Your task to perform on an android device: Do I have any events today? Image 0: 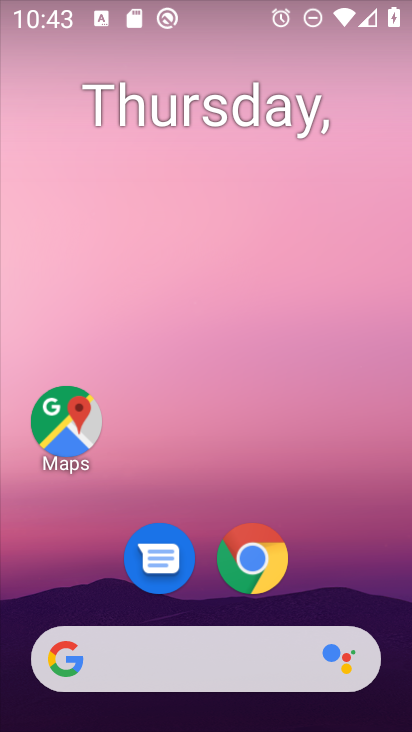
Step 0: drag from (380, 604) to (326, 73)
Your task to perform on an android device: Do I have any events today? Image 1: 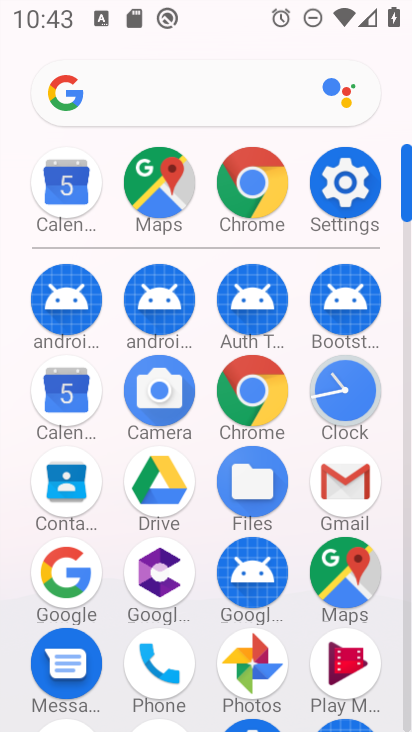
Step 1: click (408, 704)
Your task to perform on an android device: Do I have any events today? Image 2: 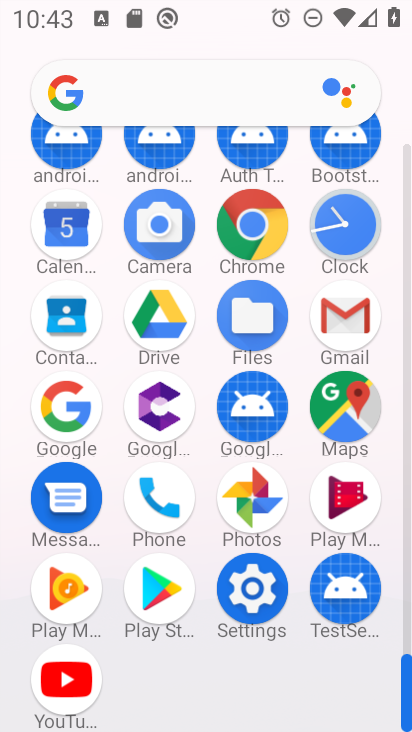
Step 2: click (66, 222)
Your task to perform on an android device: Do I have any events today? Image 3: 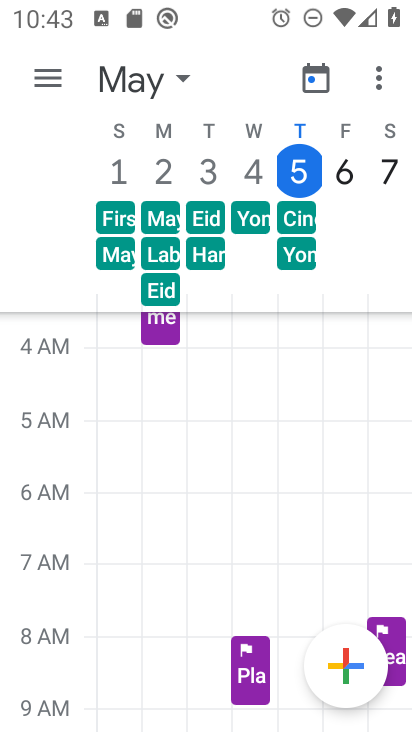
Step 3: click (47, 77)
Your task to perform on an android device: Do I have any events today? Image 4: 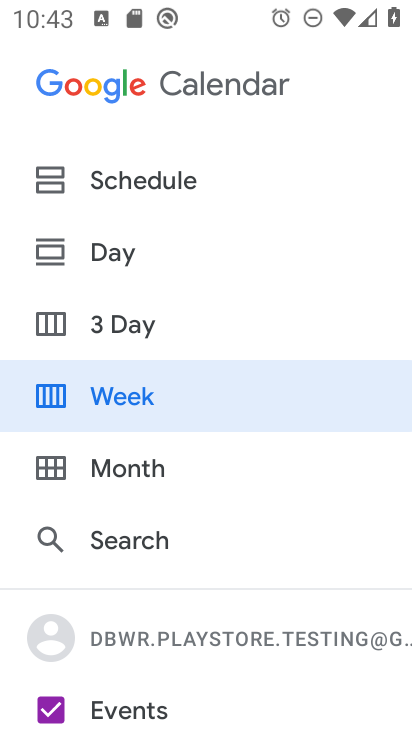
Step 4: click (118, 256)
Your task to perform on an android device: Do I have any events today? Image 5: 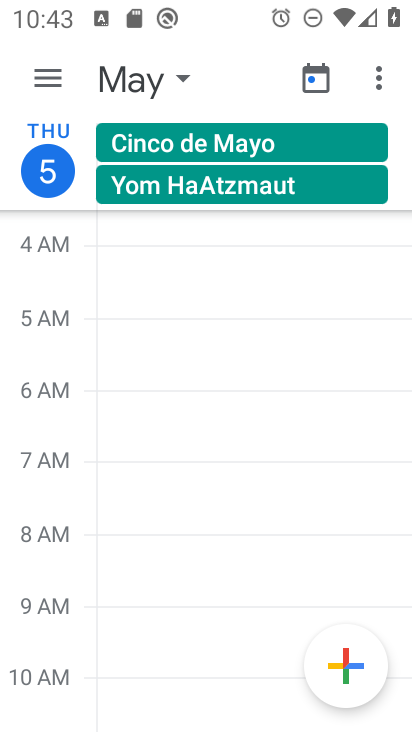
Step 5: task complete